Your task to perform on an android device: star an email in the gmail app Image 0: 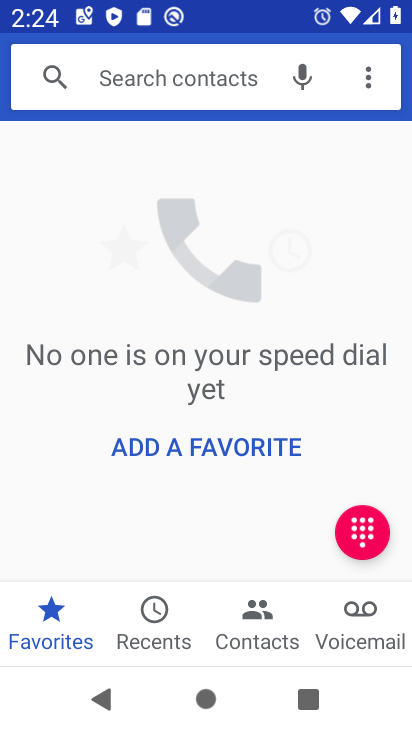
Step 0: press home button
Your task to perform on an android device: star an email in the gmail app Image 1: 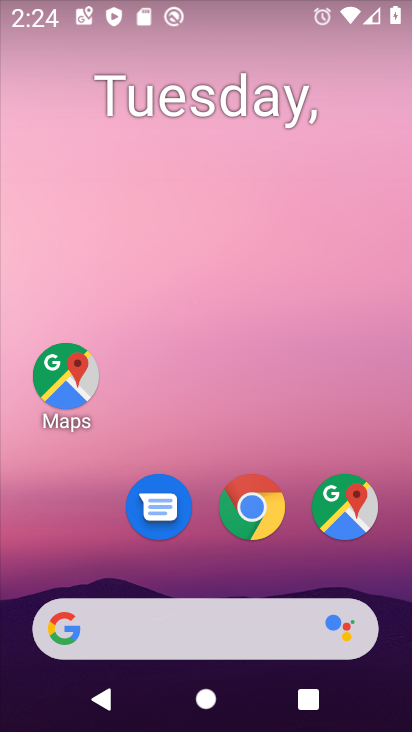
Step 1: drag from (167, 556) to (257, 108)
Your task to perform on an android device: star an email in the gmail app Image 2: 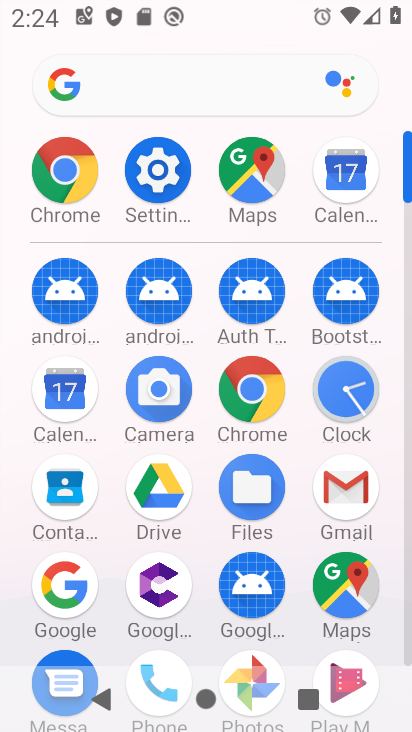
Step 2: click (351, 481)
Your task to perform on an android device: star an email in the gmail app Image 3: 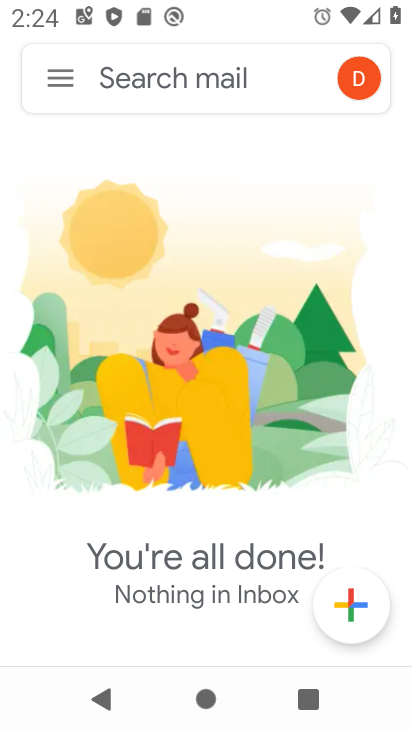
Step 3: click (49, 63)
Your task to perform on an android device: star an email in the gmail app Image 4: 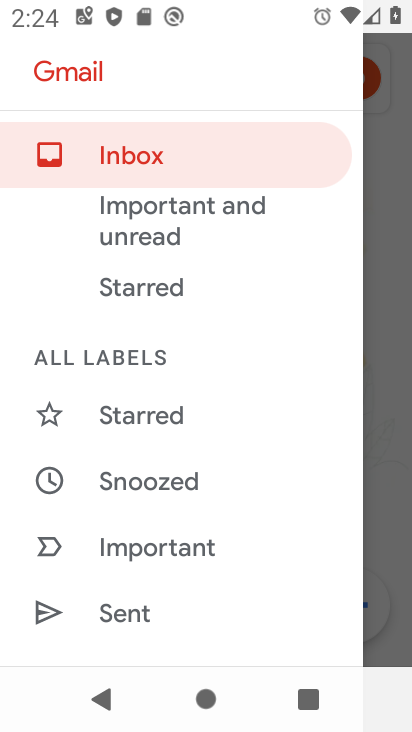
Step 4: drag from (186, 568) to (229, 314)
Your task to perform on an android device: star an email in the gmail app Image 5: 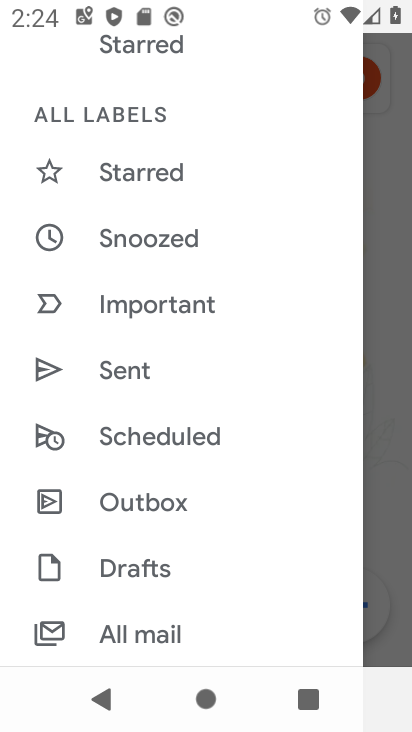
Step 5: drag from (234, 104) to (207, 280)
Your task to perform on an android device: star an email in the gmail app Image 6: 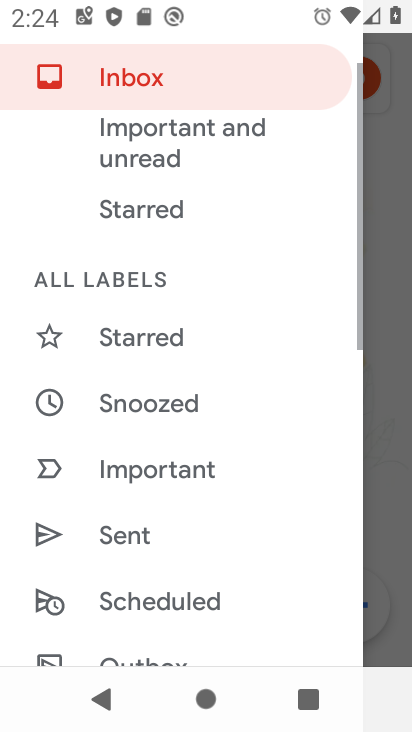
Step 6: click (142, 339)
Your task to perform on an android device: star an email in the gmail app Image 7: 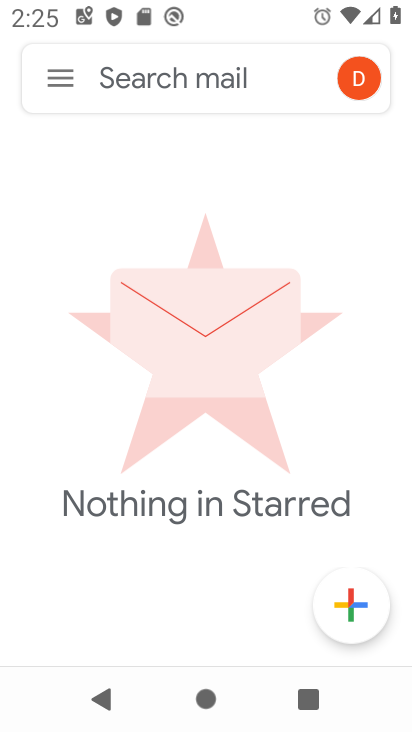
Step 7: task complete